Your task to perform on an android device: open app "Spotify" Image 0: 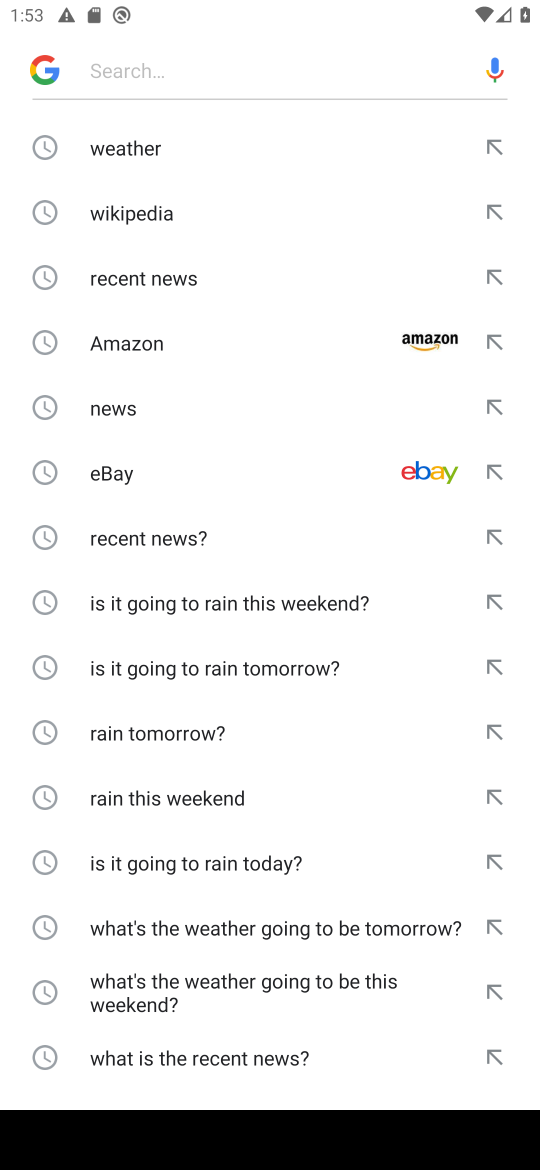
Step 0: press home button
Your task to perform on an android device: open app "Spotify" Image 1: 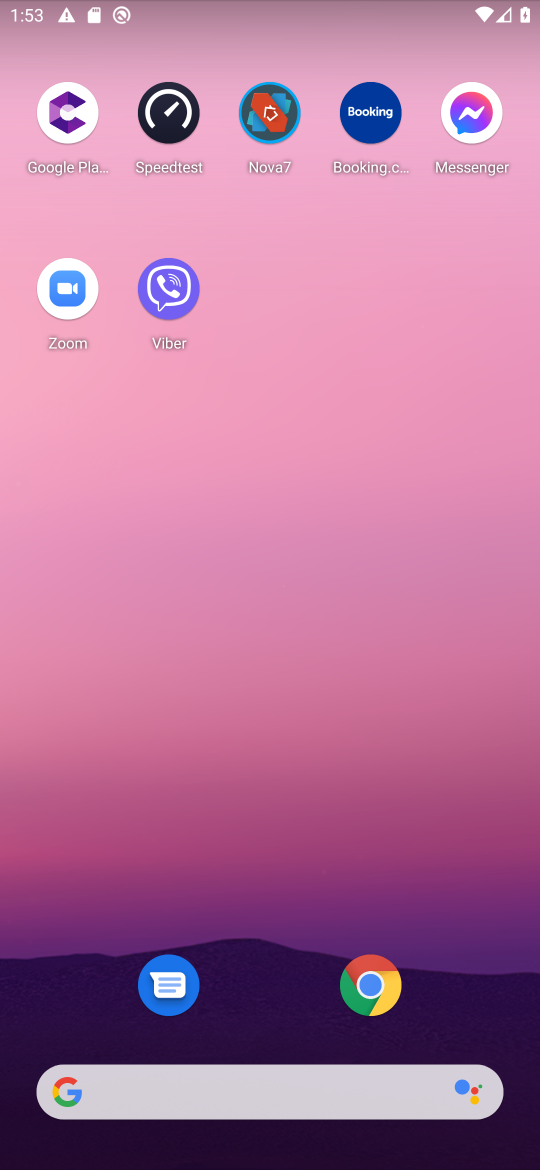
Step 1: task complete